Your task to perform on an android device: Go to battery settings Image 0: 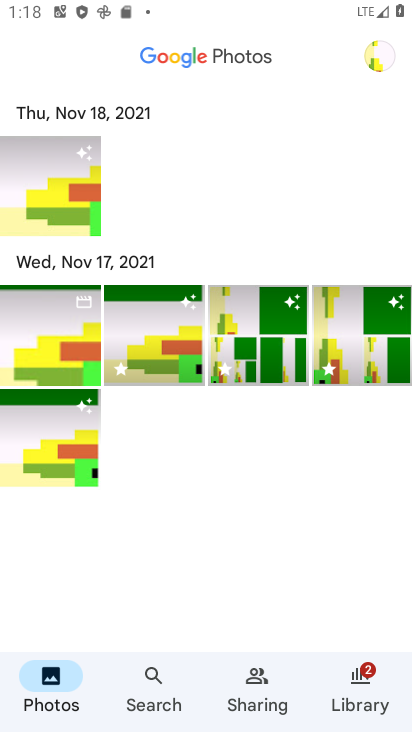
Step 0: press home button
Your task to perform on an android device: Go to battery settings Image 1: 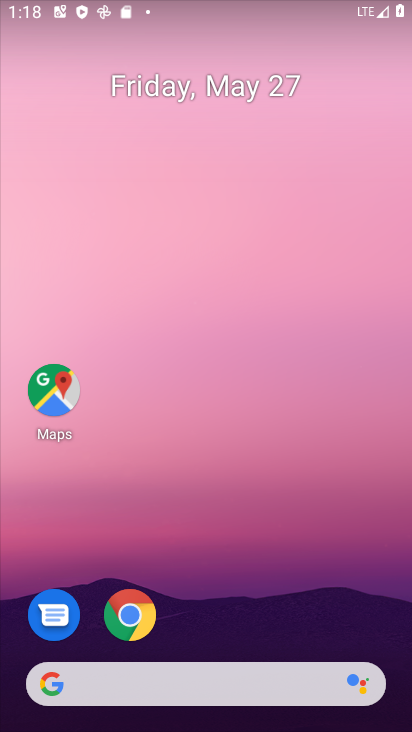
Step 1: drag from (188, 637) to (262, 2)
Your task to perform on an android device: Go to battery settings Image 2: 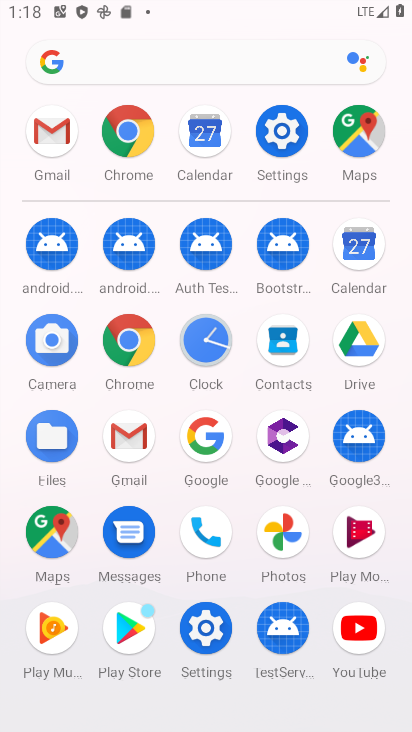
Step 2: click (298, 140)
Your task to perform on an android device: Go to battery settings Image 3: 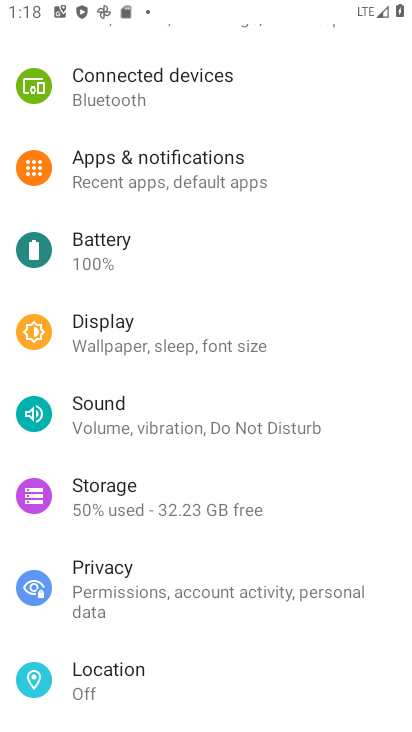
Step 3: click (177, 249)
Your task to perform on an android device: Go to battery settings Image 4: 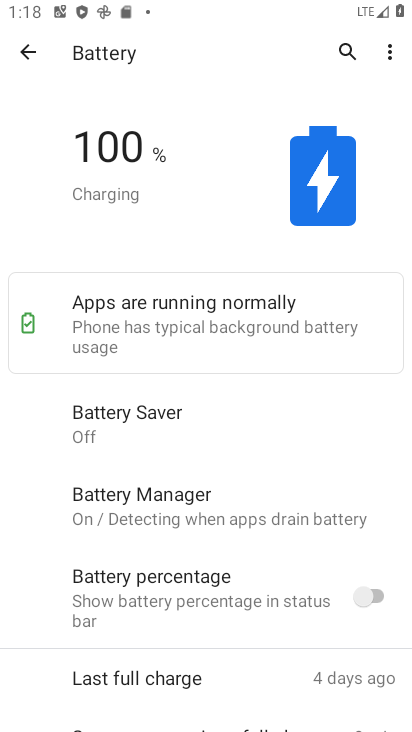
Step 4: task complete